Your task to perform on an android device: Empty the shopping cart on target.com. Image 0: 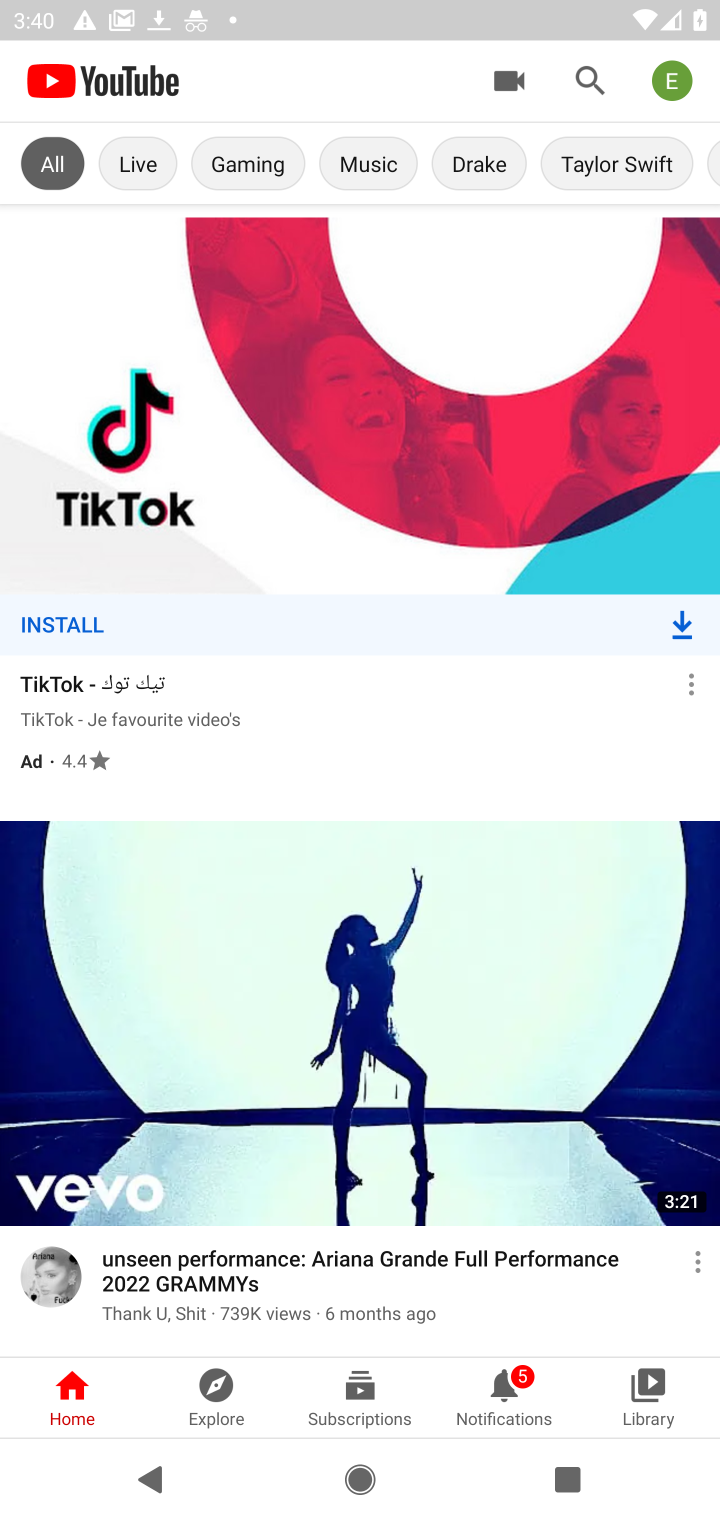
Step 0: press home button
Your task to perform on an android device: Empty the shopping cart on target.com. Image 1: 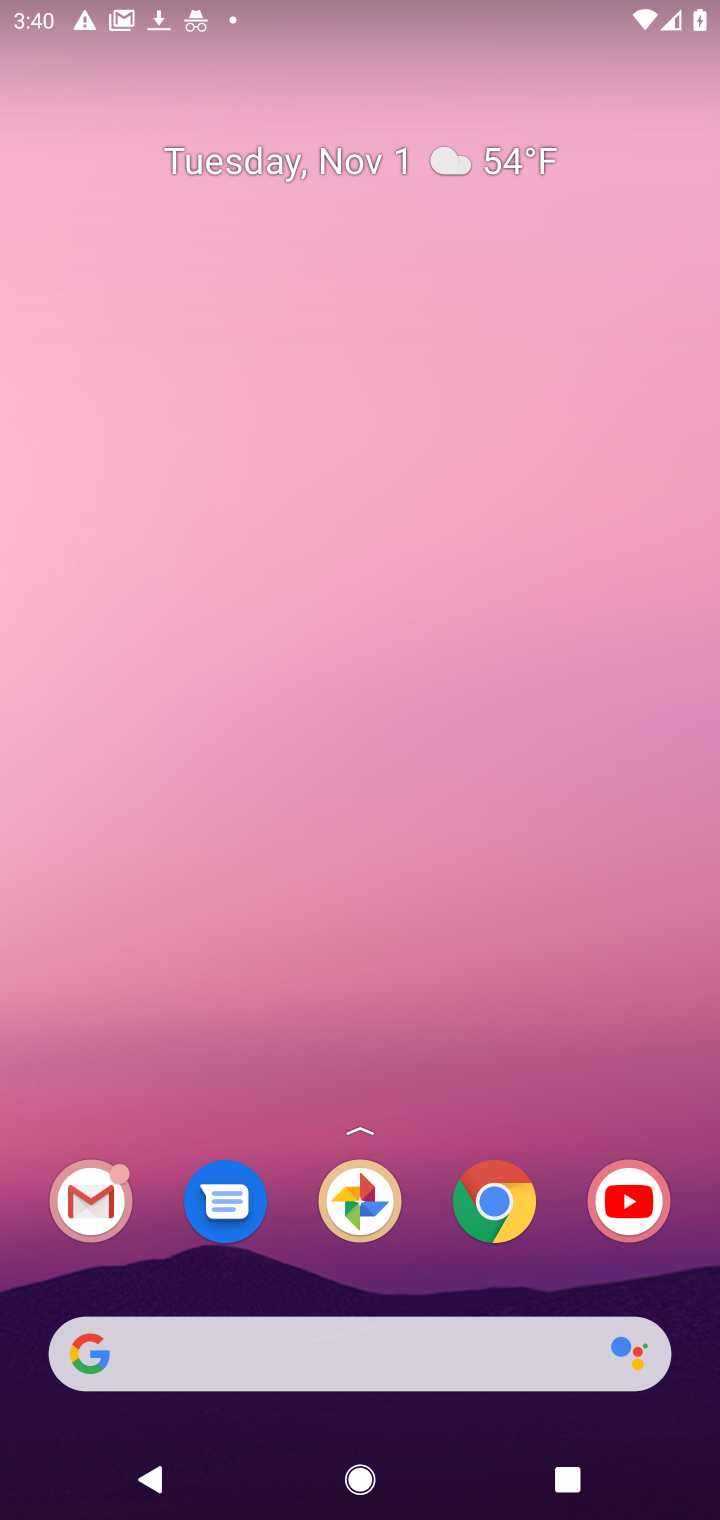
Step 1: drag from (284, 917) to (317, 201)
Your task to perform on an android device: Empty the shopping cart on target.com. Image 2: 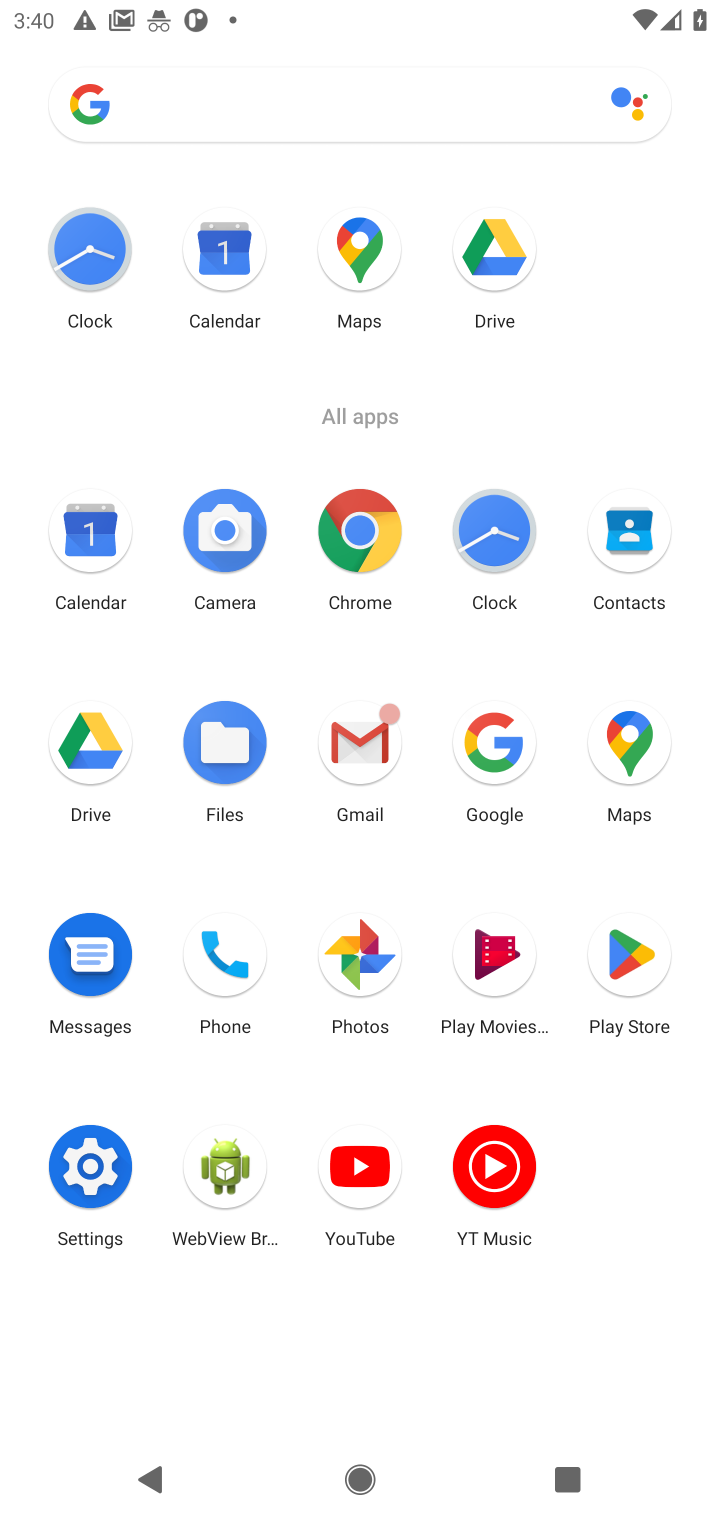
Step 2: drag from (274, 1083) to (315, 410)
Your task to perform on an android device: Empty the shopping cart on target.com. Image 3: 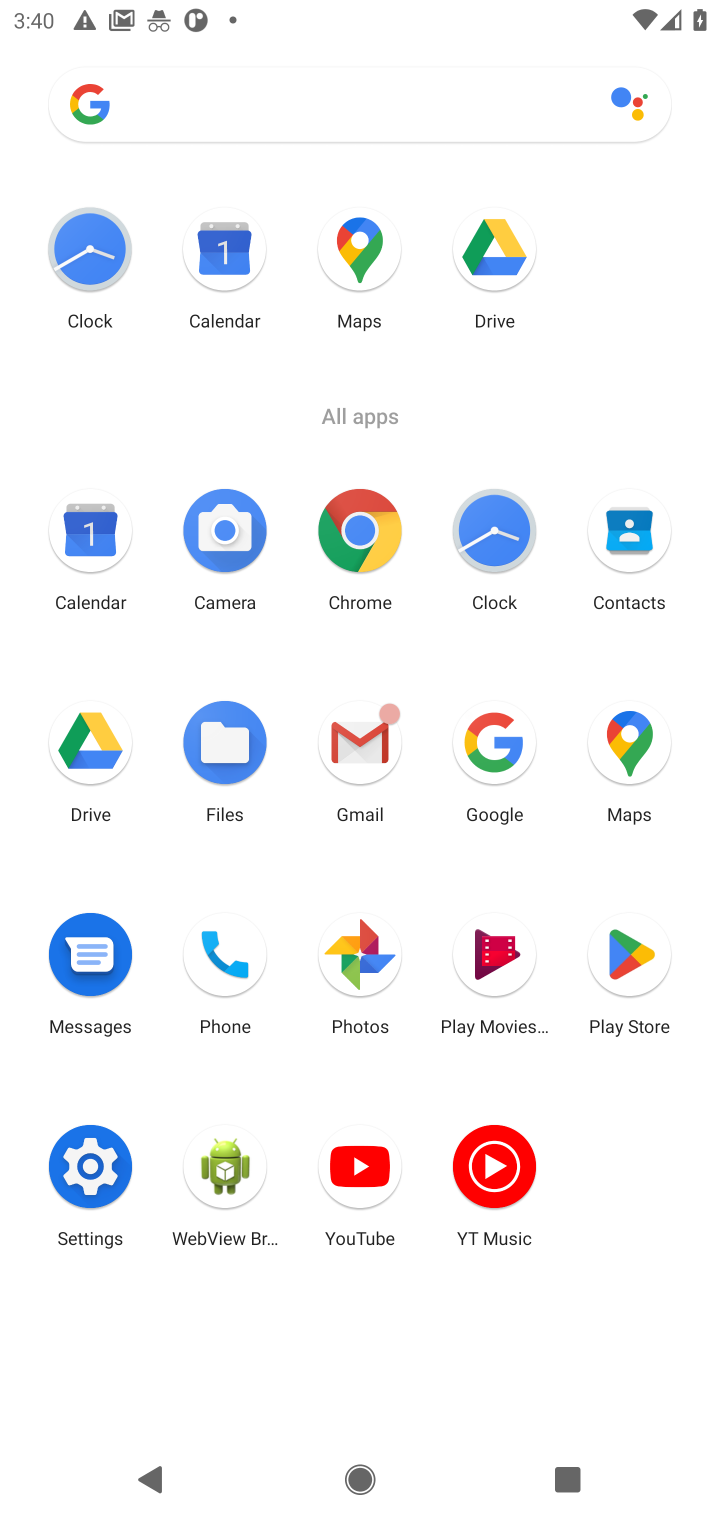
Step 3: click (497, 712)
Your task to perform on an android device: Empty the shopping cart on target.com. Image 4: 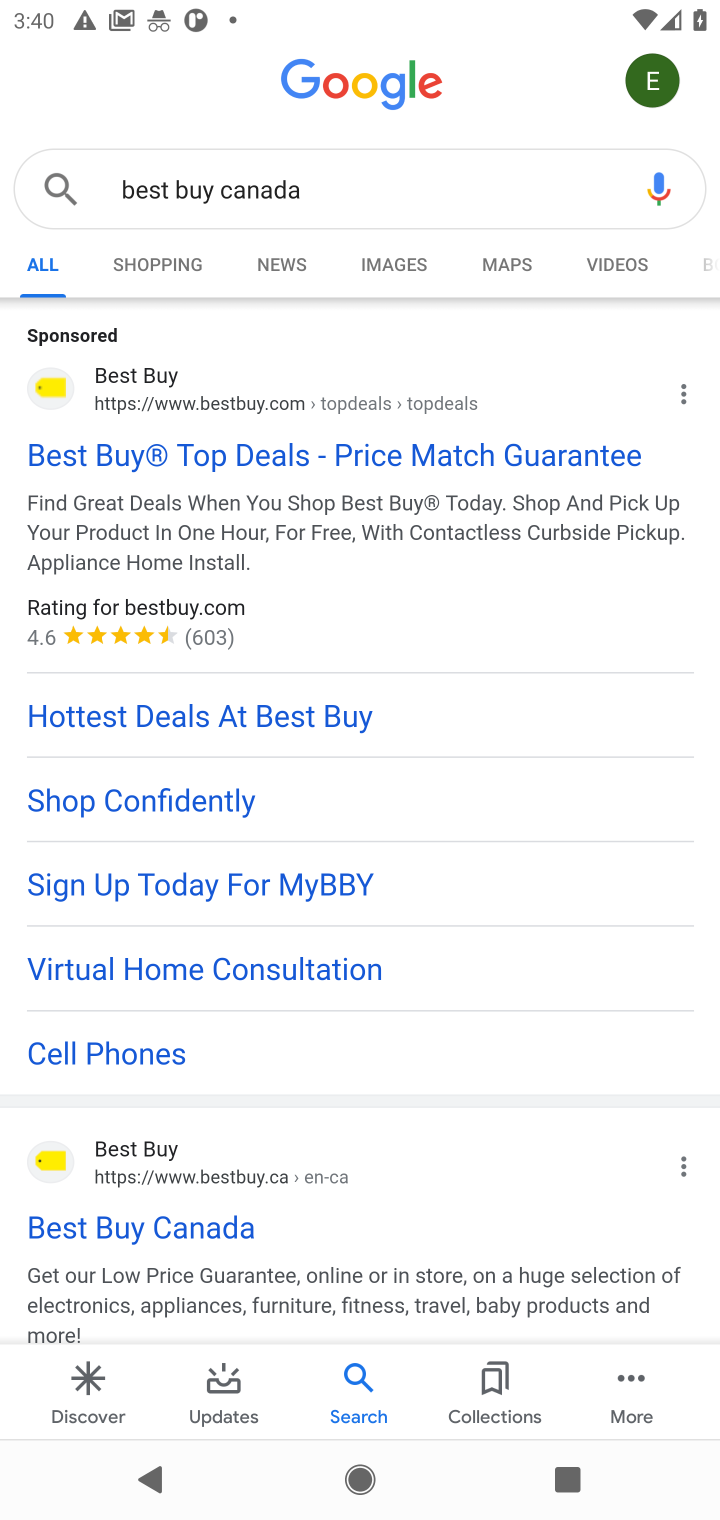
Step 4: click (309, 183)
Your task to perform on an android device: Empty the shopping cart on target.com. Image 5: 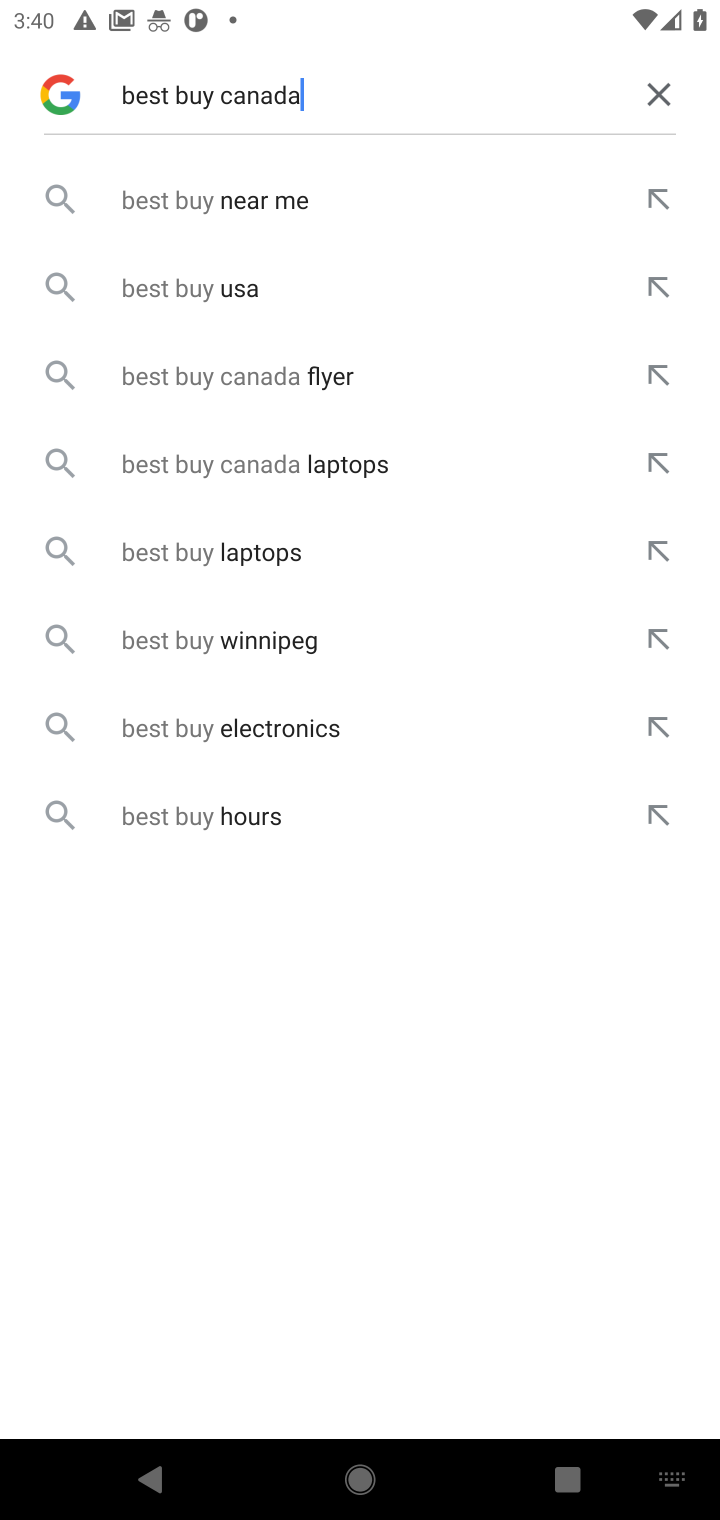
Step 5: click (641, 92)
Your task to perform on an android device: Empty the shopping cart on target.com. Image 6: 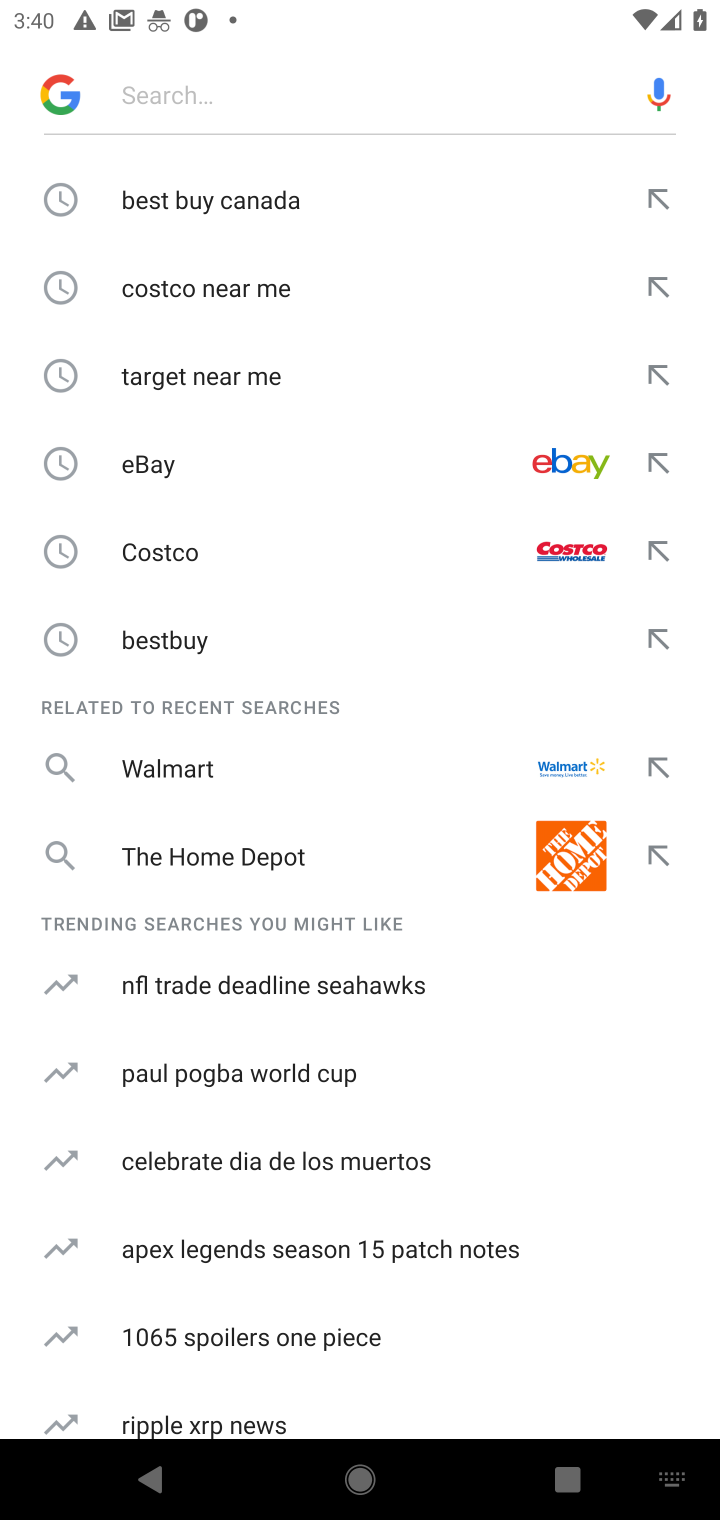
Step 6: click (193, 96)
Your task to perform on an android device: Empty the shopping cart on target.com. Image 7: 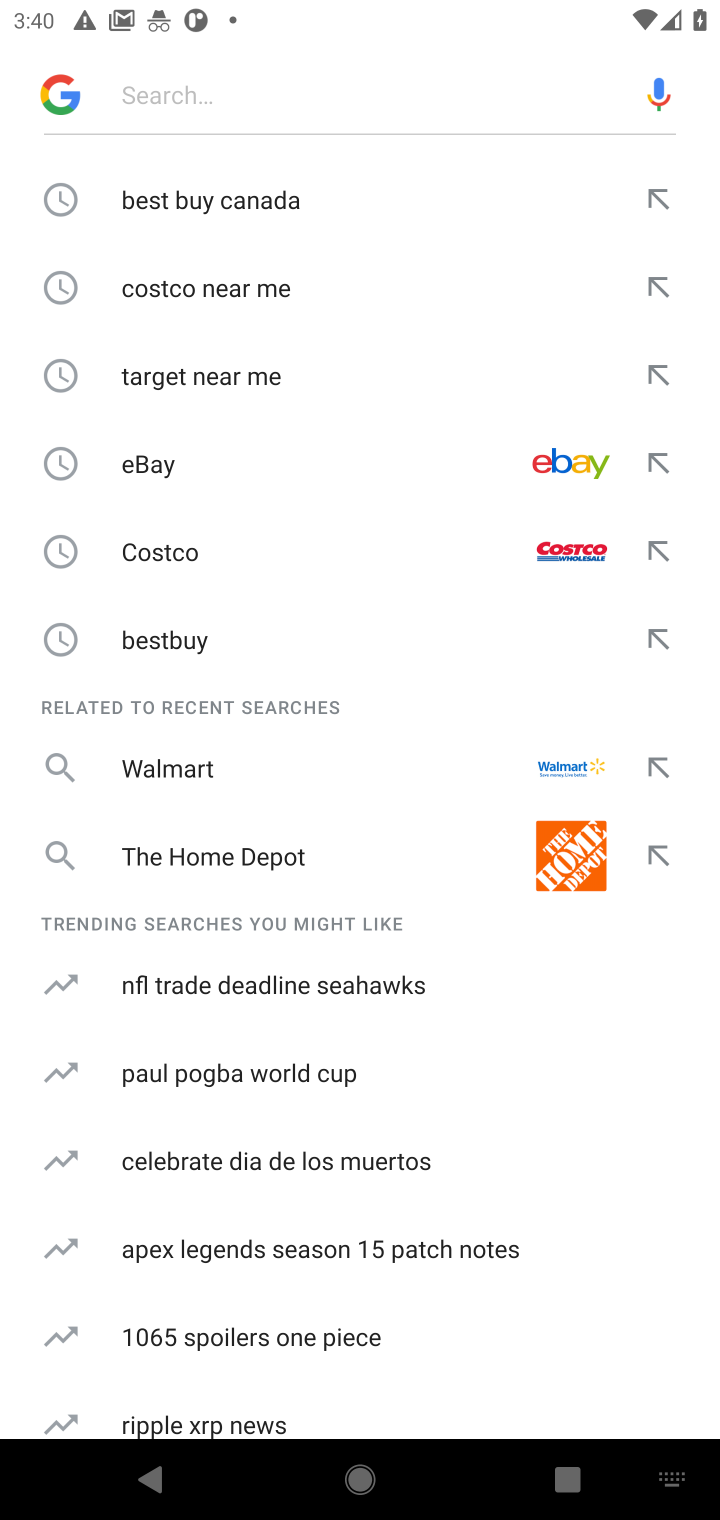
Step 7: type "target "
Your task to perform on an android device: Empty the shopping cart on target.com. Image 8: 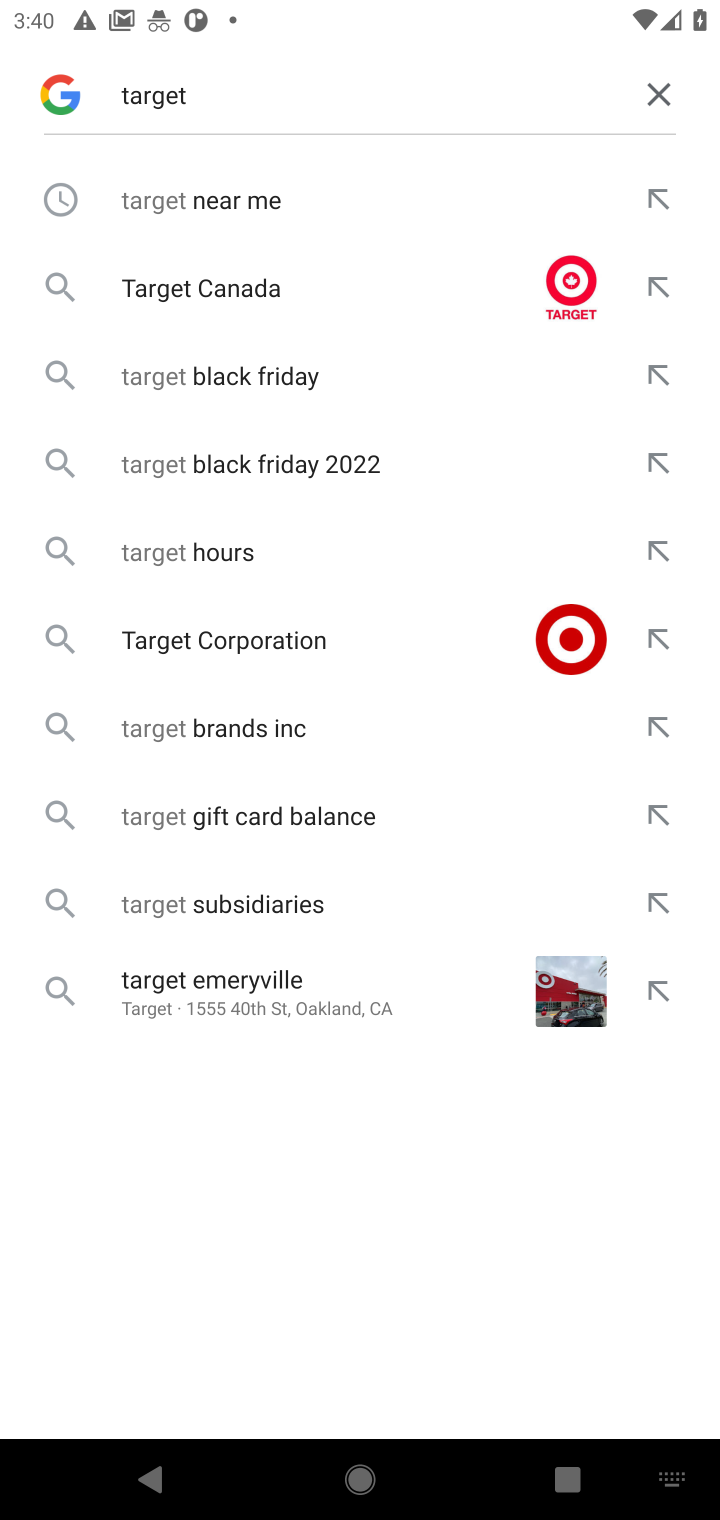
Step 8: click (208, 188)
Your task to perform on an android device: Empty the shopping cart on target.com. Image 9: 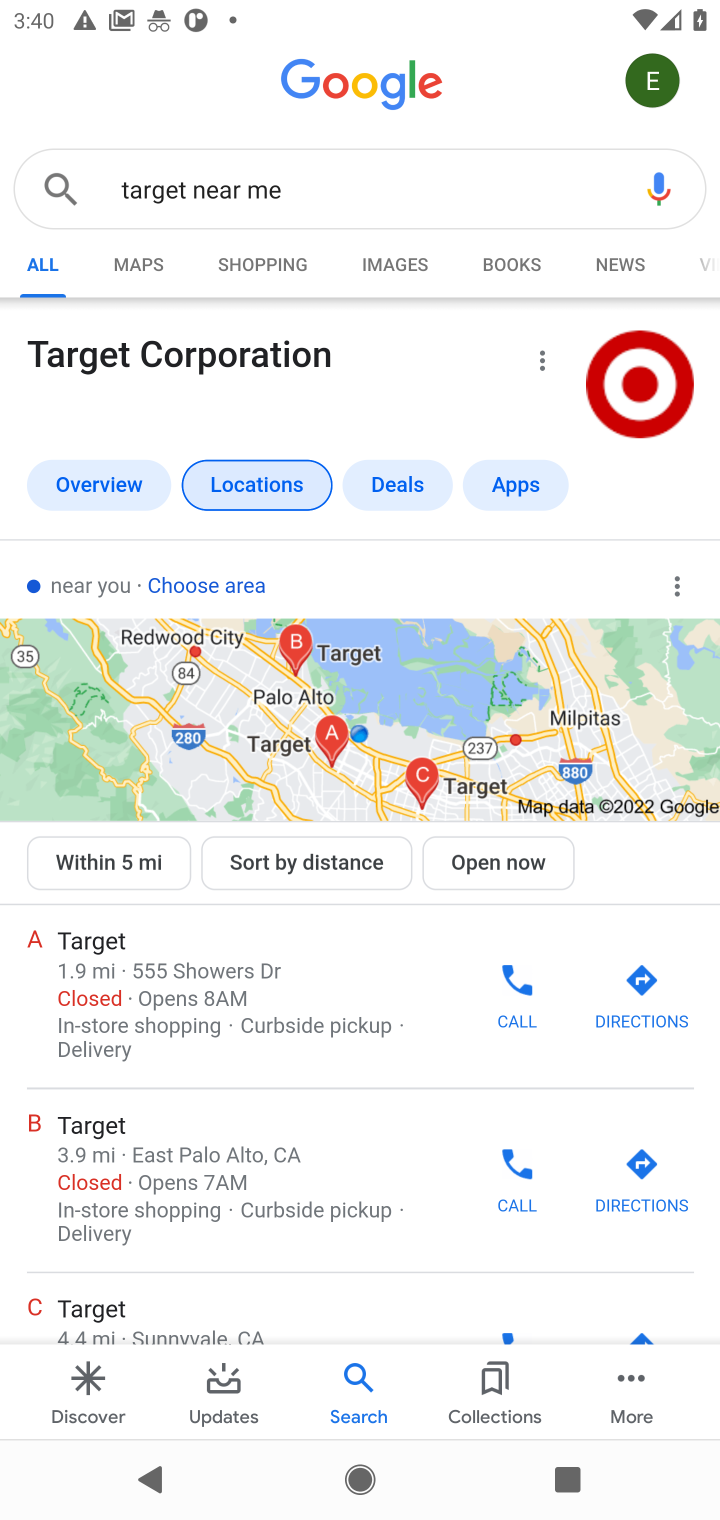
Step 9: drag from (266, 1281) to (355, 582)
Your task to perform on an android device: Empty the shopping cart on target.com. Image 10: 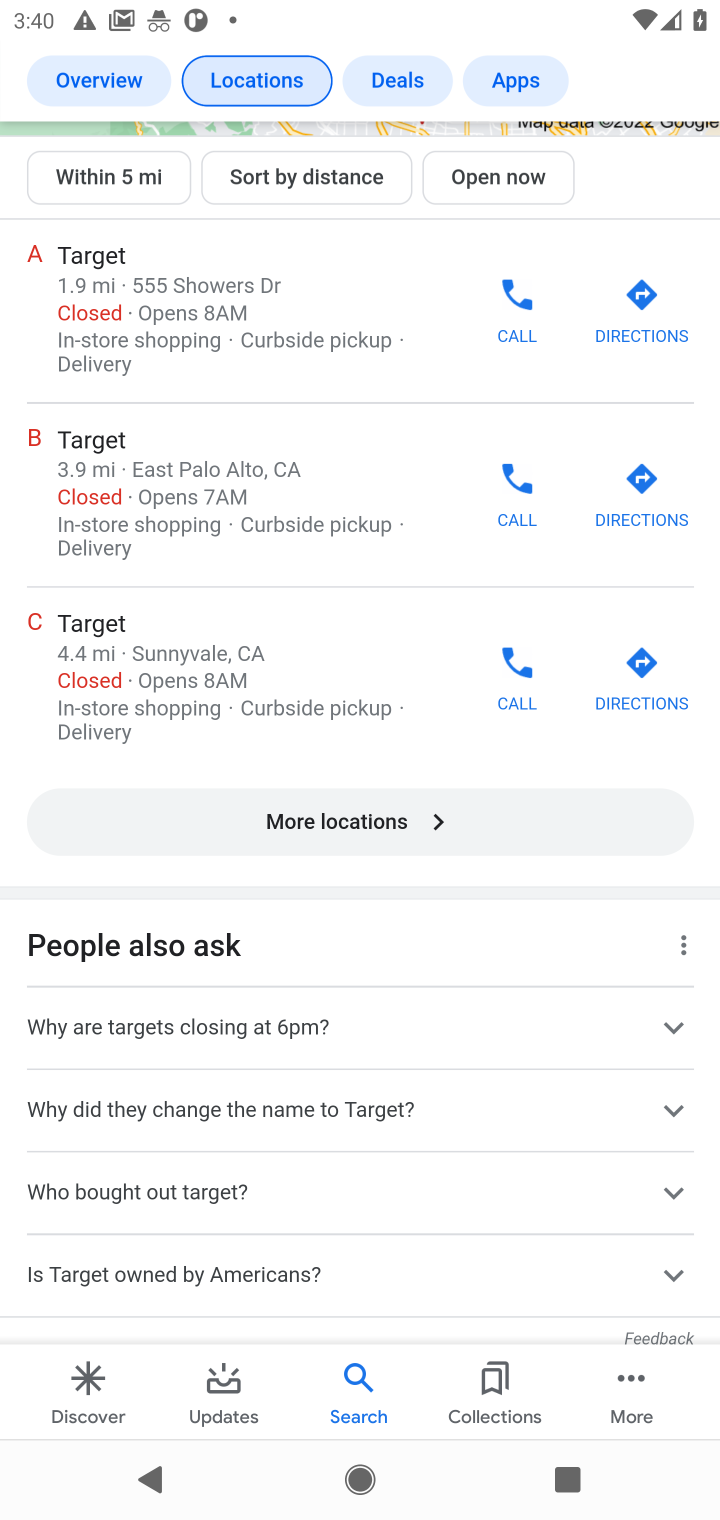
Step 10: drag from (329, 1178) to (386, 341)
Your task to perform on an android device: Empty the shopping cart on target.com. Image 11: 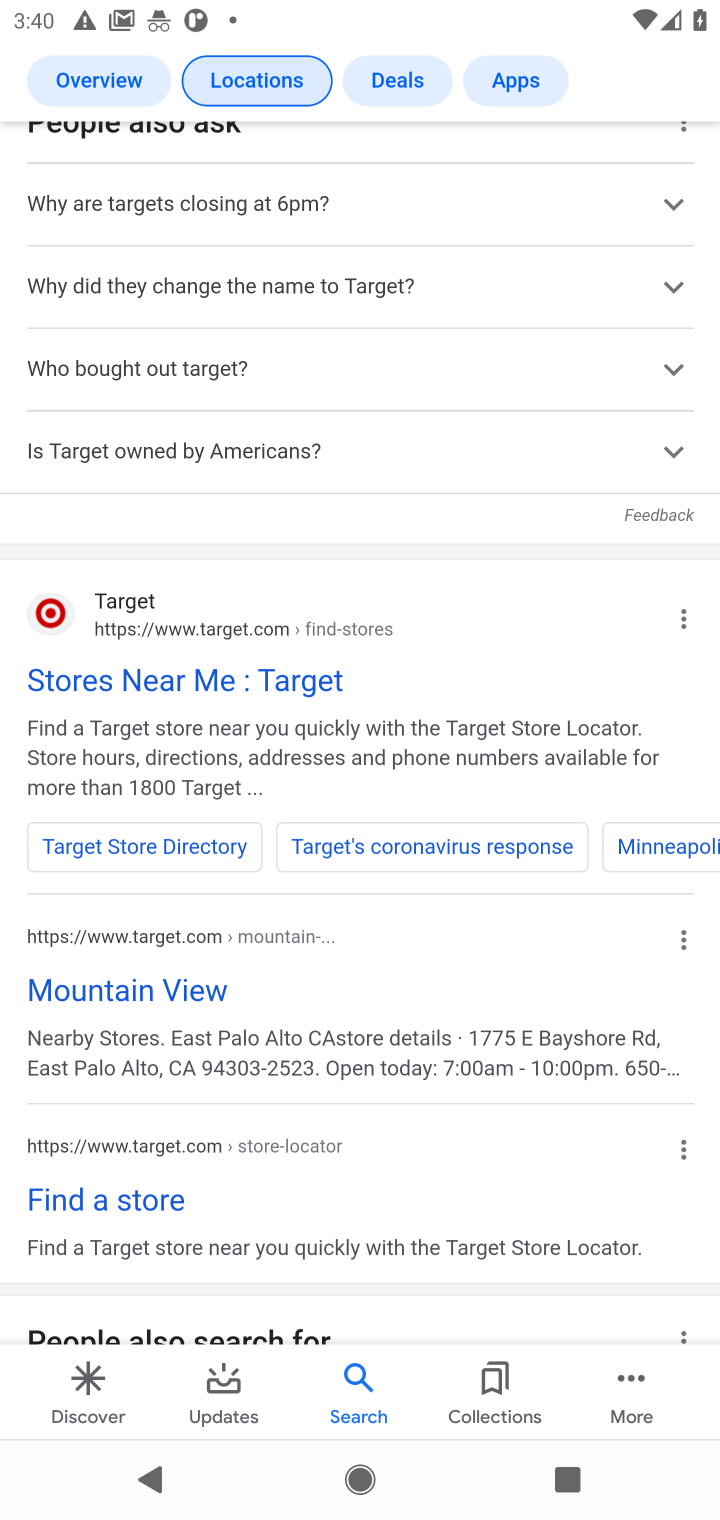
Step 11: click (55, 613)
Your task to perform on an android device: Empty the shopping cart on target.com. Image 12: 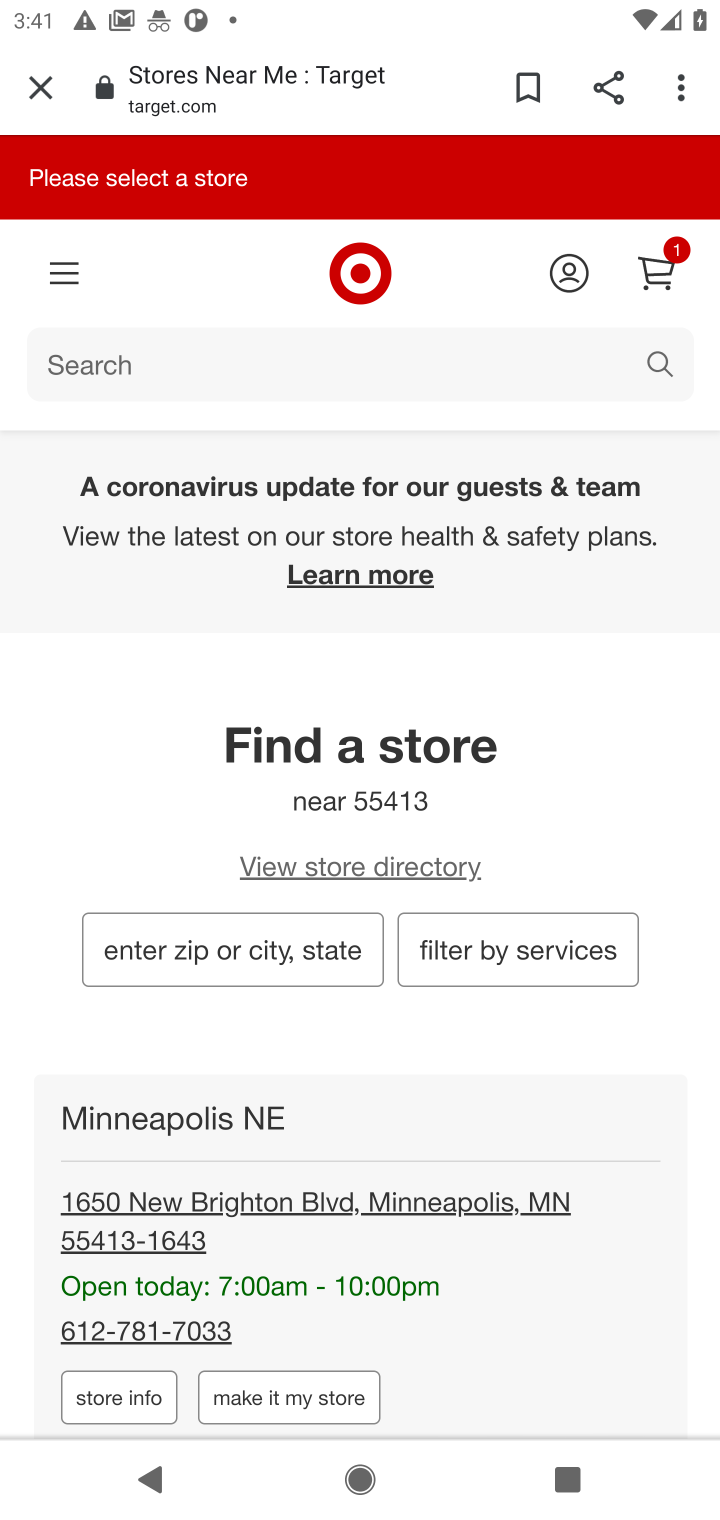
Step 12: click (666, 256)
Your task to perform on an android device: Empty the shopping cart on target.com. Image 13: 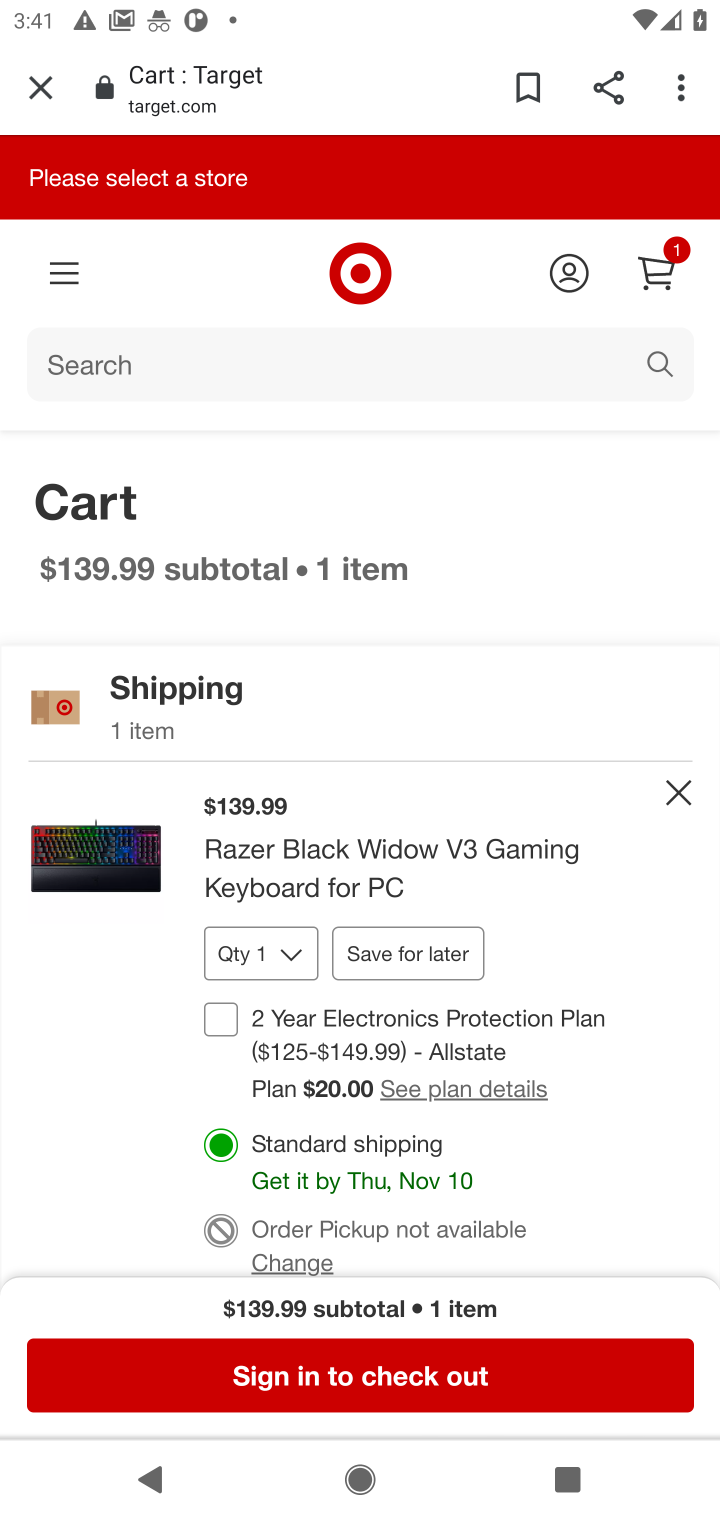
Step 13: drag from (515, 1195) to (535, 796)
Your task to perform on an android device: Empty the shopping cart on target.com. Image 14: 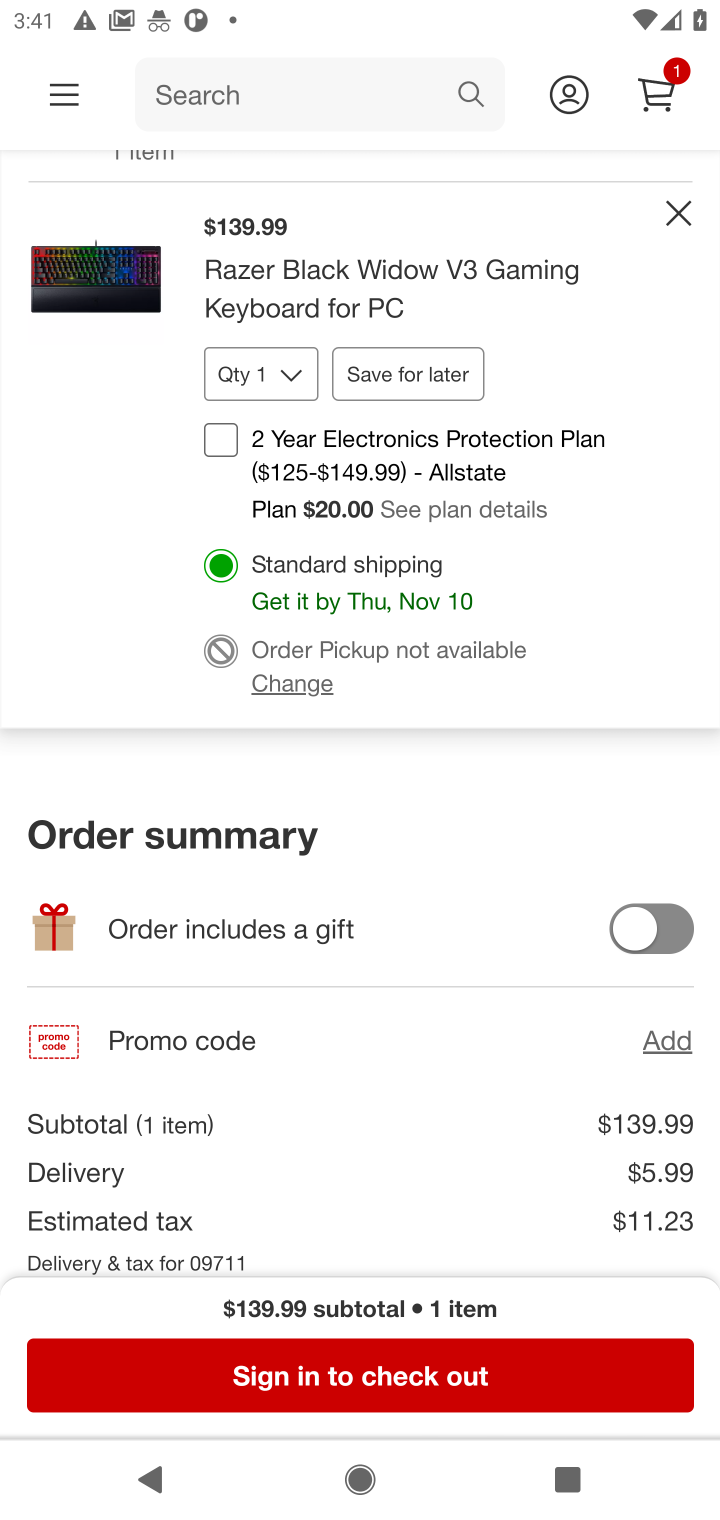
Step 14: click (692, 205)
Your task to perform on an android device: Empty the shopping cart on target.com. Image 15: 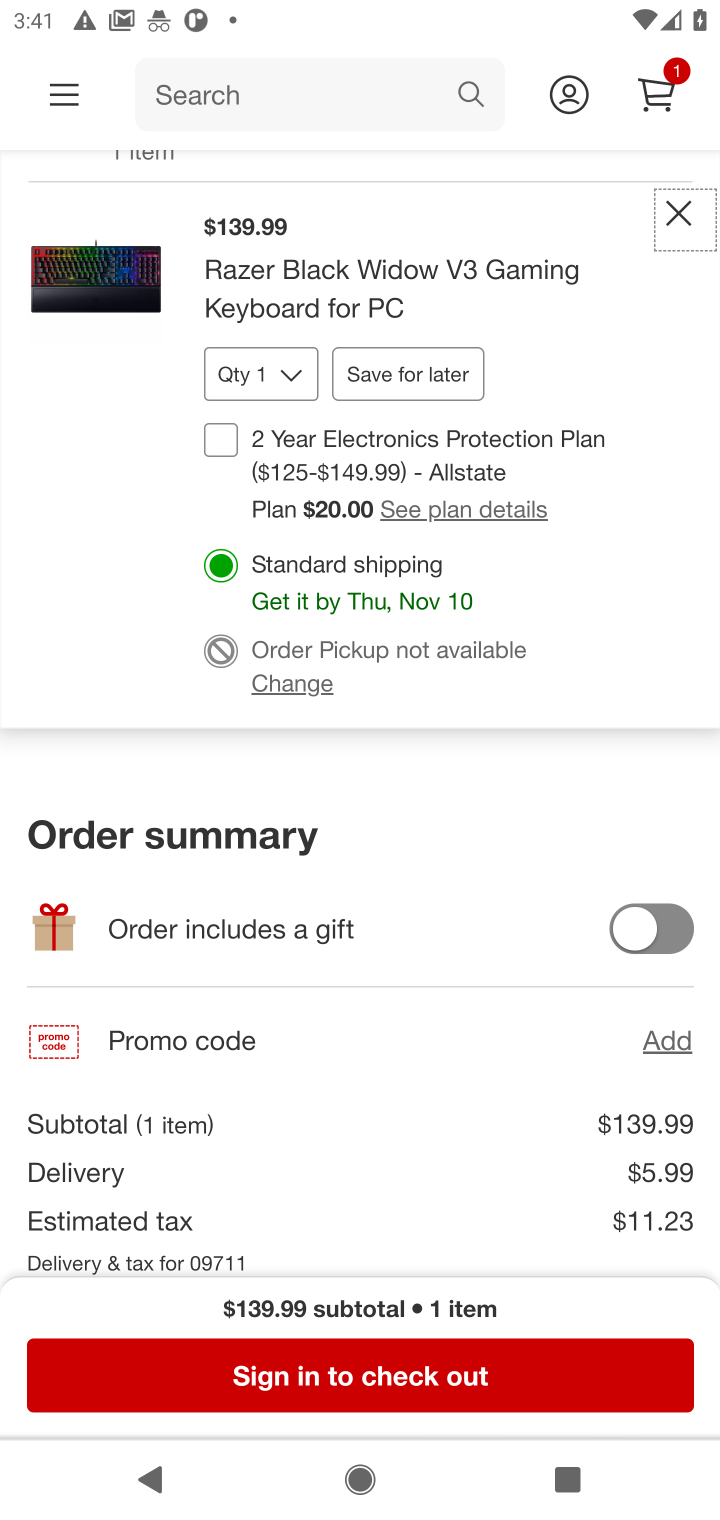
Step 15: click (673, 213)
Your task to perform on an android device: Empty the shopping cart on target.com. Image 16: 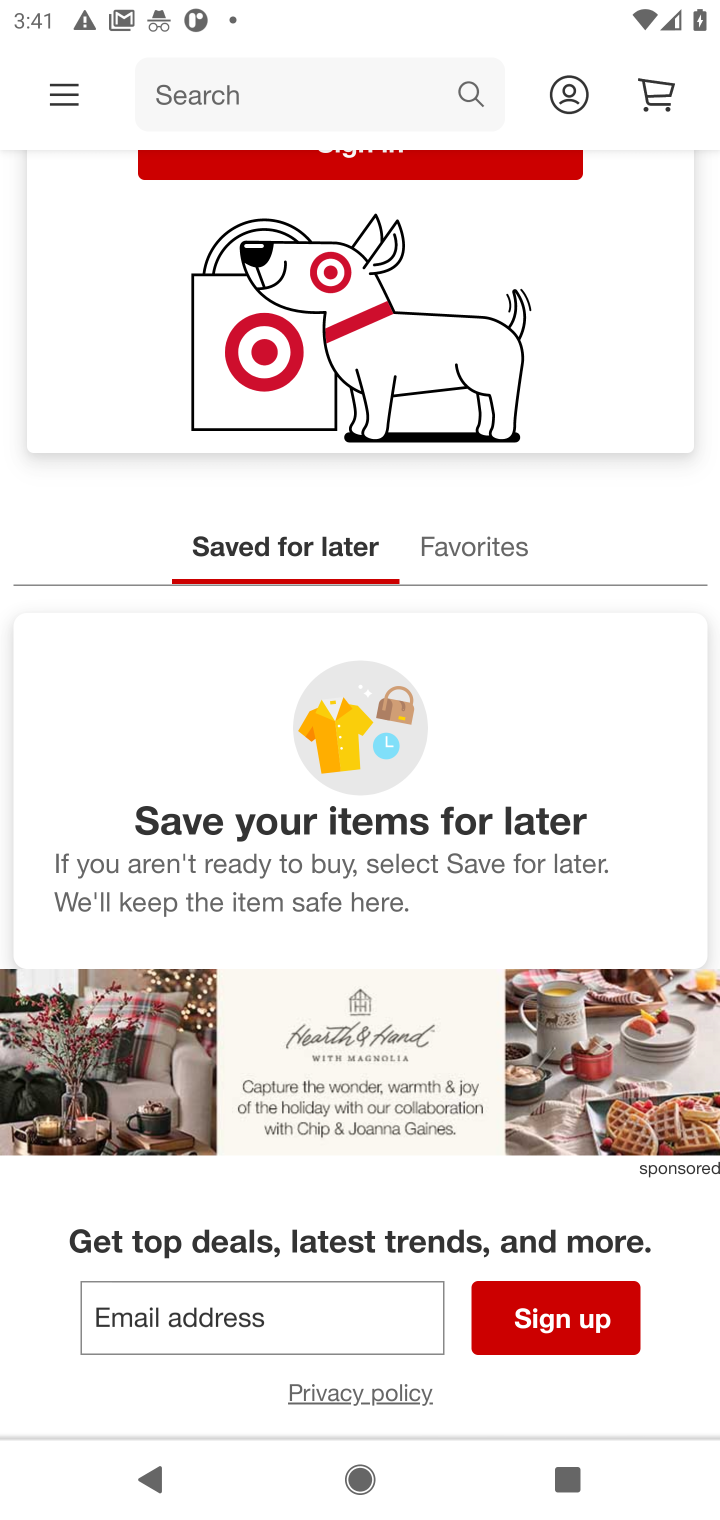
Step 16: task complete